Your task to perform on an android device: toggle show notifications on the lock screen Image 0: 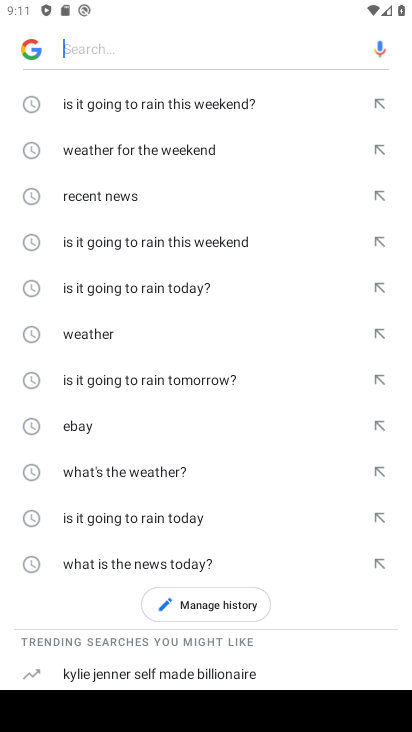
Step 0: press home button
Your task to perform on an android device: toggle show notifications on the lock screen Image 1: 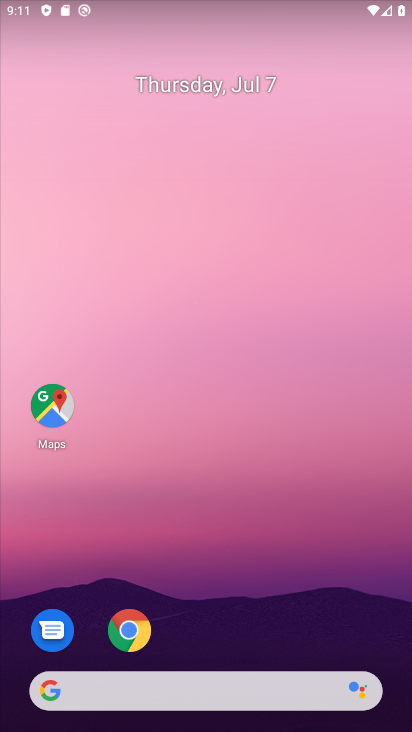
Step 1: drag from (214, 669) to (233, 268)
Your task to perform on an android device: toggle show notifications on the lock screen Image 2: 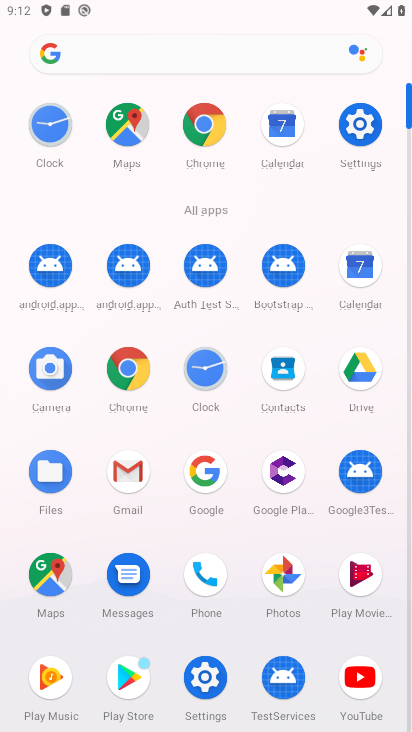
Step 2: click (357, 131)
Your task to perform on an android device: toggle show notifications on the lock screen Image 3: 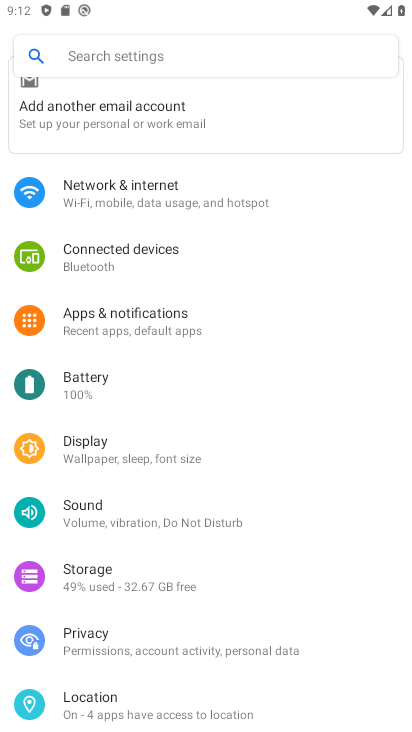
Step 3: click (87, 631)
Your task to perform on an android device: toggle show notifications on the lock screen Image 4: 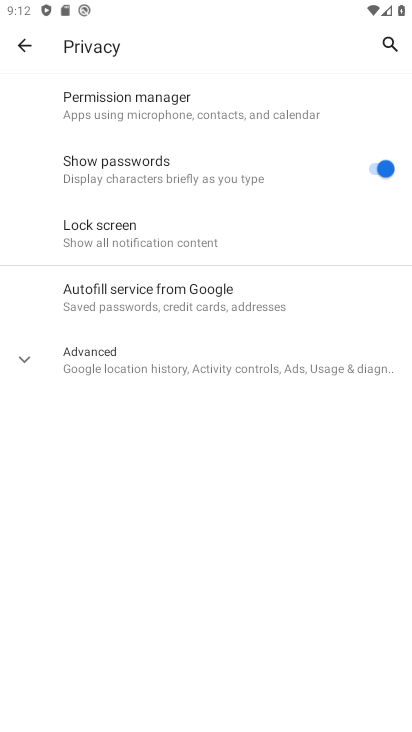
Step 4: click (107, 218)
Your task to perform on an android device: toggle show notifications on the lock screen Image 5: 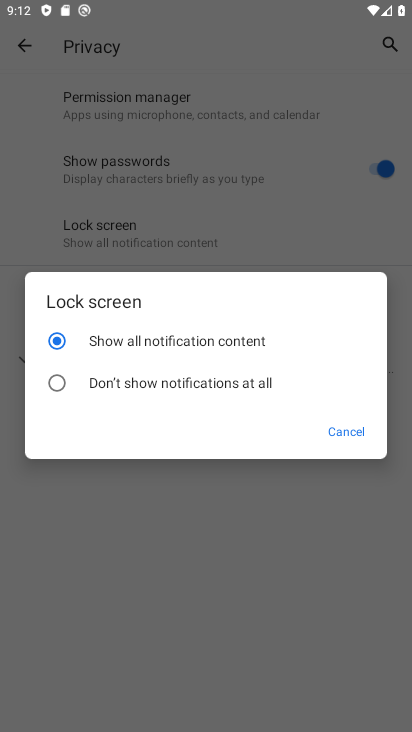
Step 5: click (107, 378)
Your task to perform on an android device: toggle show notifications on the lock screen Image 6: 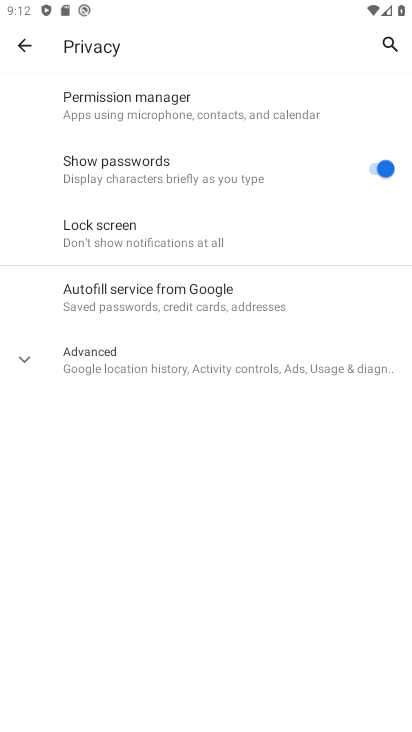
Step 6: task complete